Your task to perform on an android device: all mails in gmail Image 0: 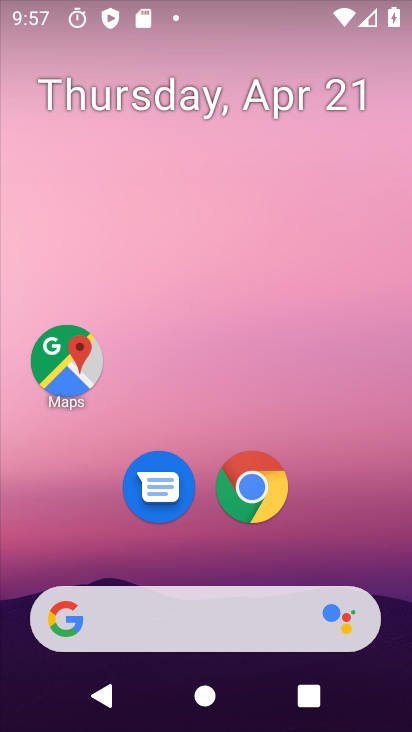
Step 0: drag from (394, 617) to (342, 243)
Your task to perform on an android device: all mails in gmail Image 1: 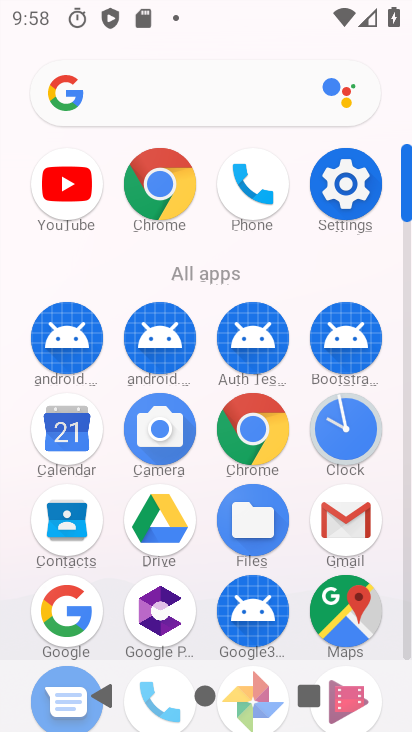
Step 1: click (343, 516)
Your task to perform on an android device: all mails in gmail Image 2: 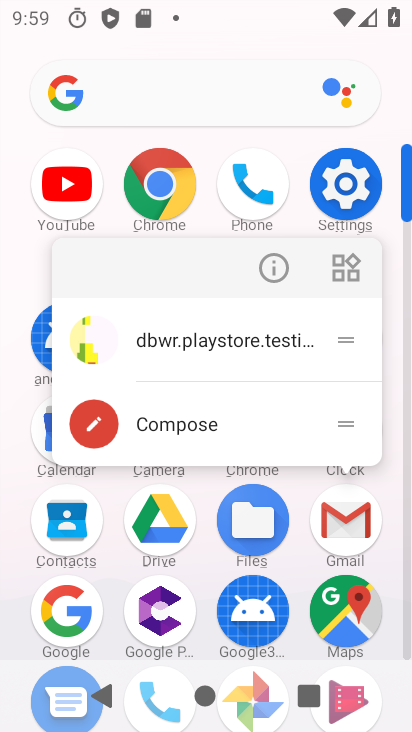
Step 2: press back button
Your task to perform on an android device: all mails in gmail Image 3: 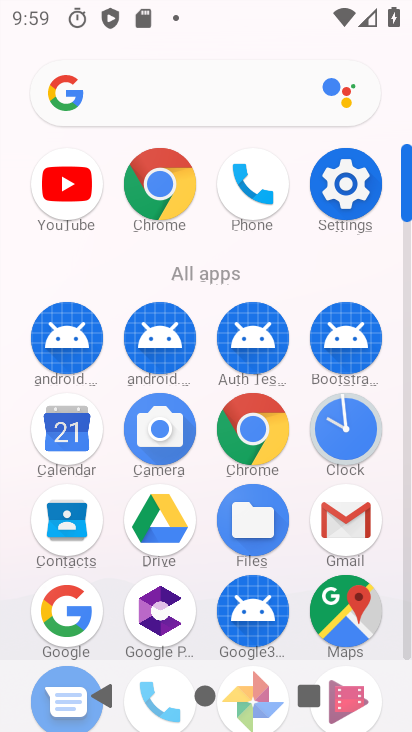
Step 3: click (326, 530)
Your task to perform on an android device: all mails in gmail Image 4: 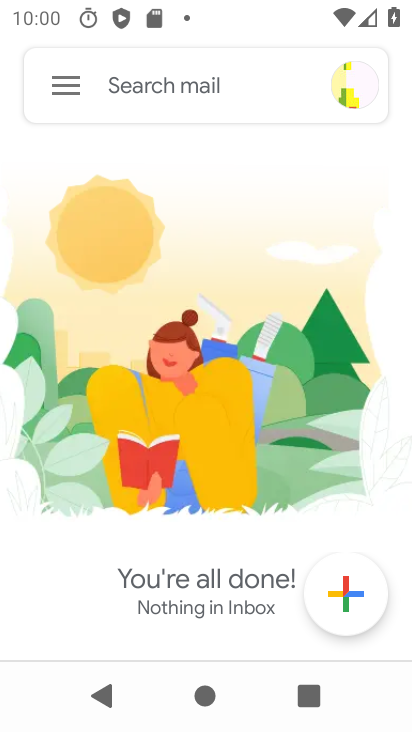
Step 4: click (65, 83)
Your task to perform on an android device: all mails in gmail Image 5: 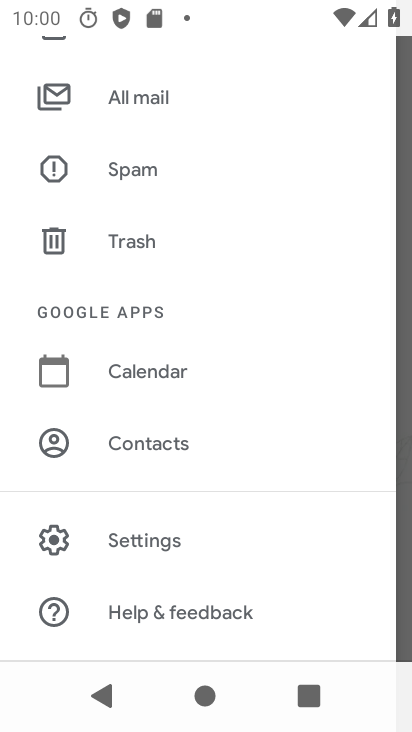
Step 5: drag from (276, 281) to (276, 229)
Your task to perform on an android device: all mails in gmail Image 6: 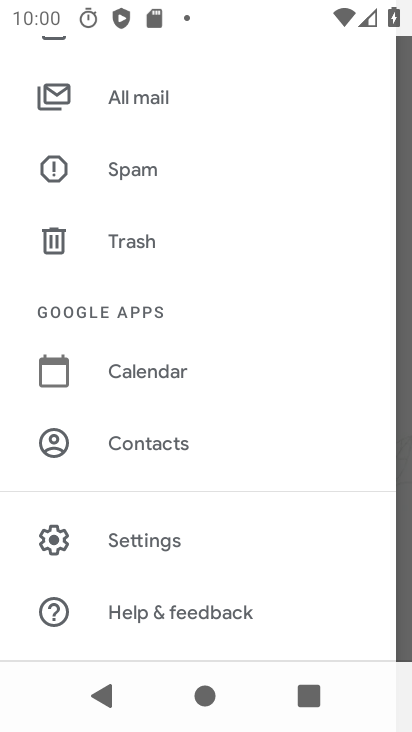
Step 6: click (288, 230)
Your task to perform on an android device: all mails in gmail Image 7: 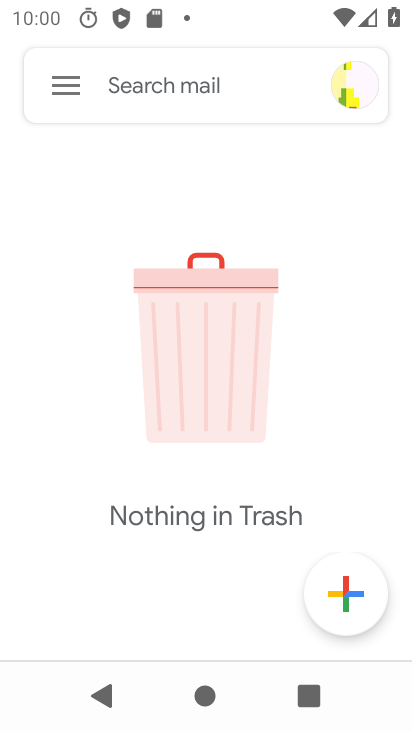
Step 7: click (62, 86)
Your task to perform on an android device: all mails in gmail Image 8: 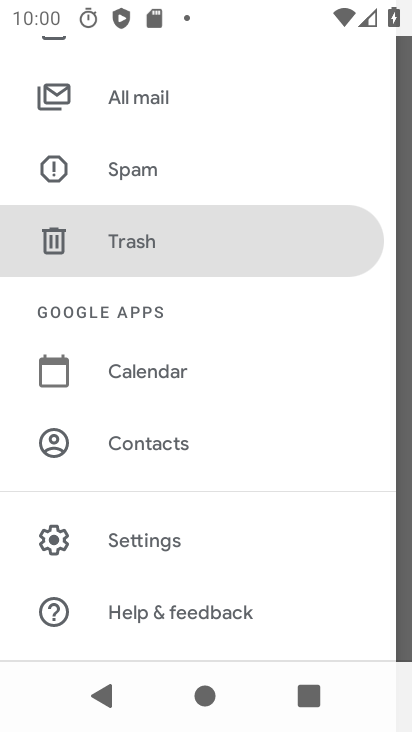
Step 8: click (125, 97)
Your task to perform on an android device: all mails in gmail Image 9: 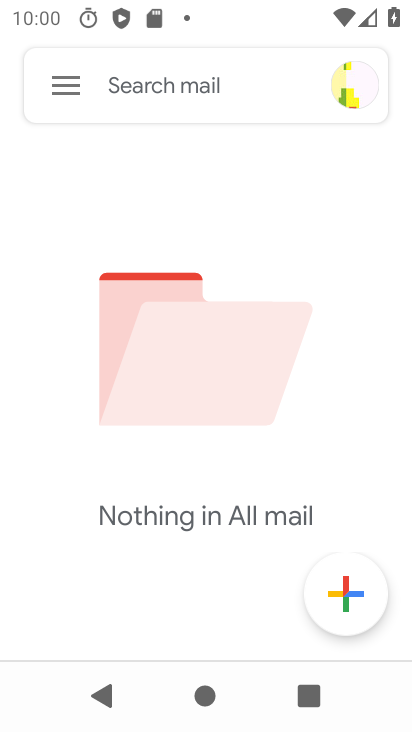
Step 9: task complete